Your task to perform on an android device: uninstall "Google Sheets" Image 0: 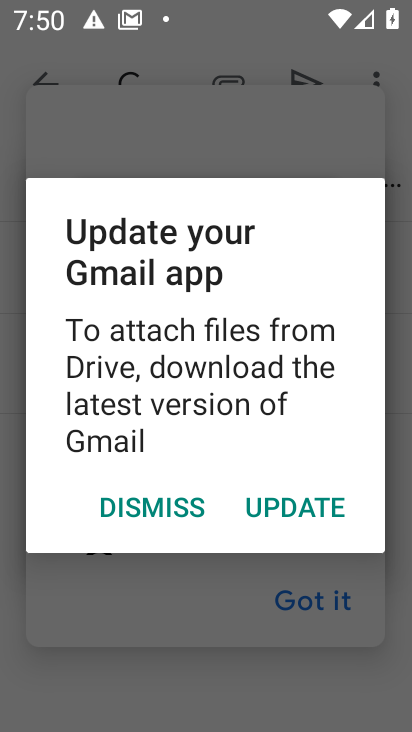
Step 0: press home button
Your task to perform on an android device: uninstall "Google Sheets" Image 1: 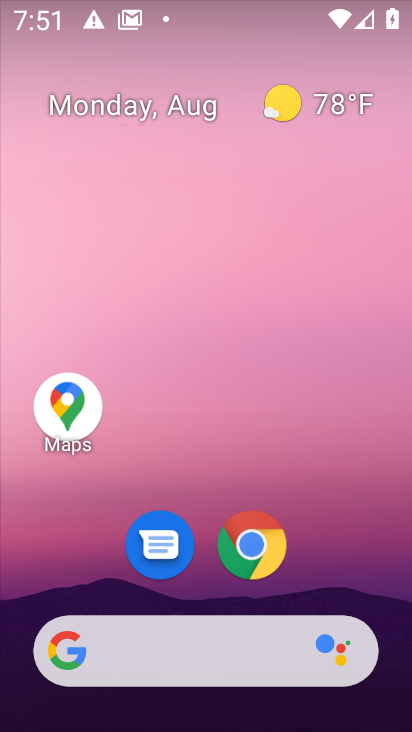
Step 1: drag from (342, 571) to (350, 54)
Your task to perform on an android device: uninstall "Google Sheets" Image 2: 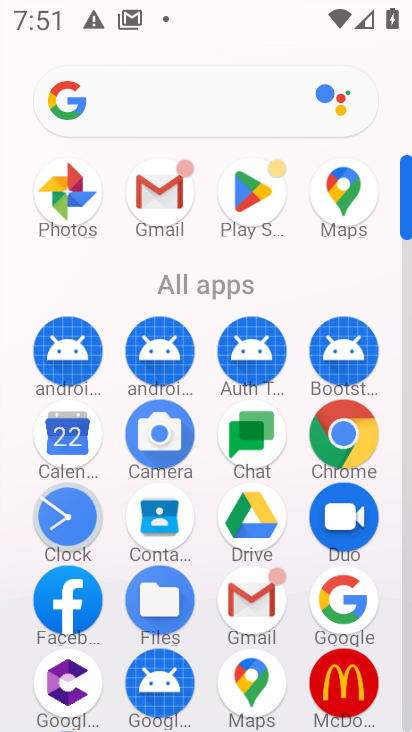
Step 2: click (252, 196)
Your task to perform on an android device: uninstall "Google Sheets" Image 3: 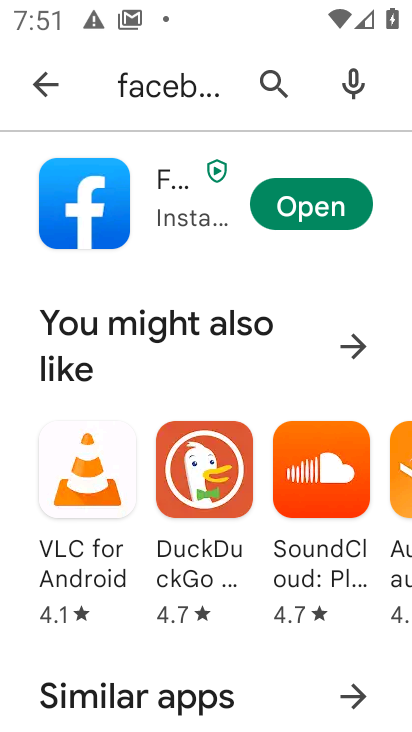
Step 3: press back button
Your task to perform on an android device: uninstall "Google Sheets" Image 4: 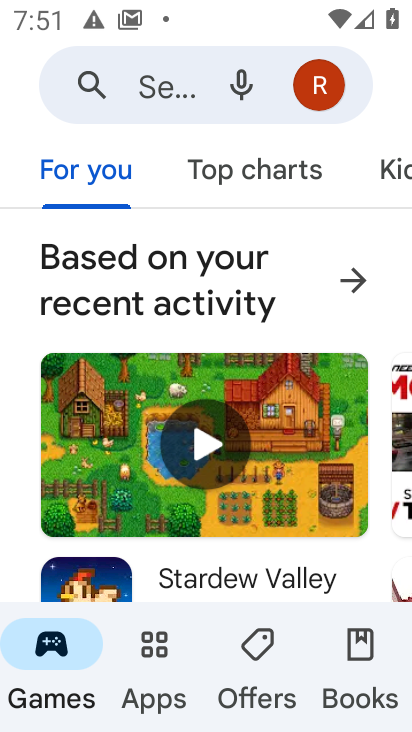
Step 4: click (166, 94)
Your task to perform on an android device: uninstall "Google Sheets" Image 5: 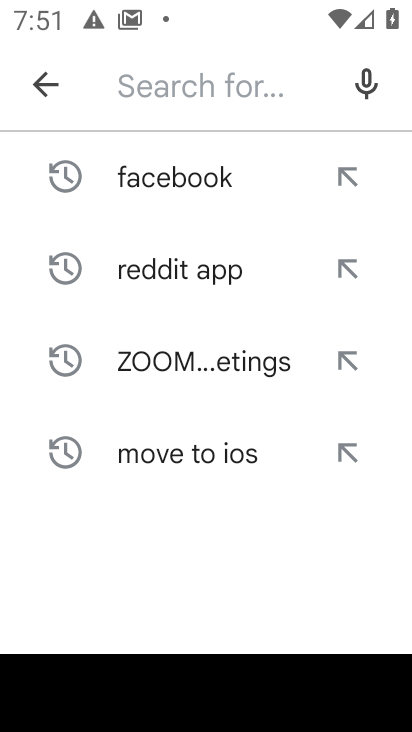
Step 5: type "google sheets"
Your task to perform on an android device: uninstall "Google Sheets" Image 6: 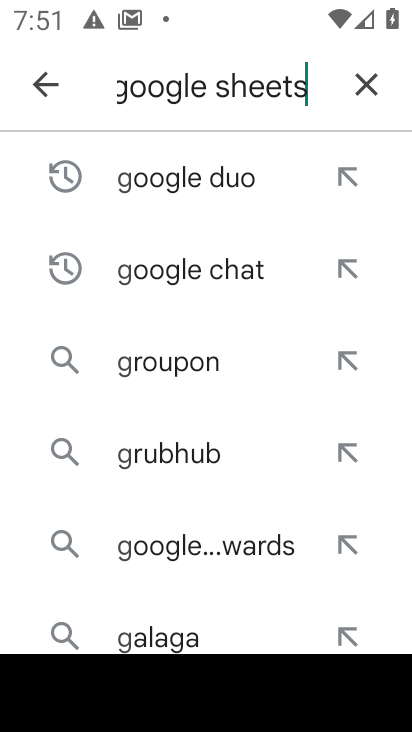
Step 6: press enter
Your task to perform on an android device: uninstall "Google Sheets" Image 7: 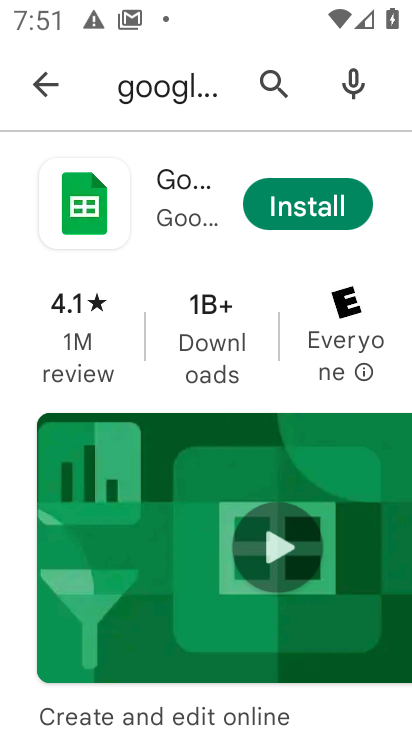
Step 7: task complete